Your task to perform on an android device: snooze an email in the gmail app Image 0: 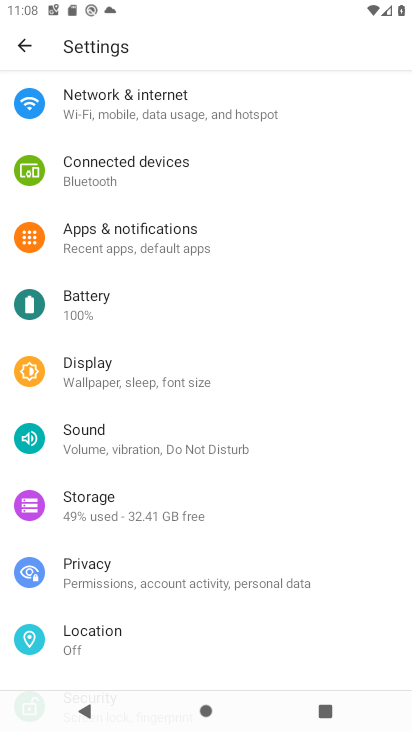
Step 0: press home button
Your task to perform on an android device: snooze an email in the gmail app Image 1: 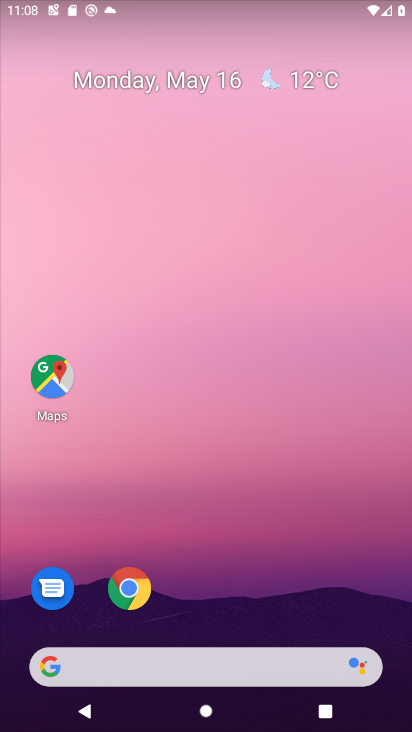
Step 1: drag from (221, 624) to (286, 170)
Your task to perform on an android device: snooze an email in the gmail app Image 2: 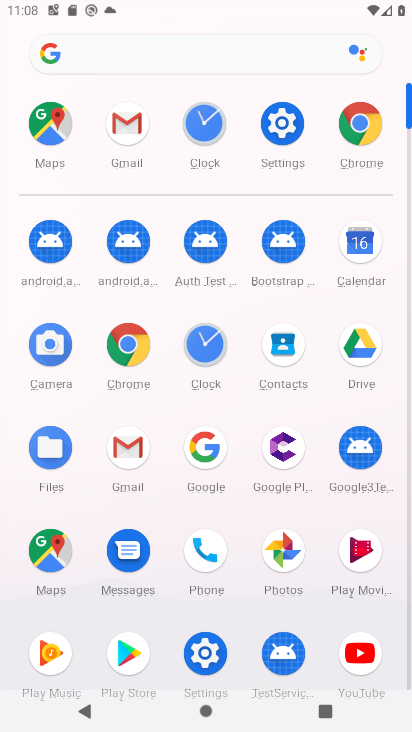
Step 2: click (120, 111)
Your task to perform on an android device: snooze an email in the gmail app Image 3: 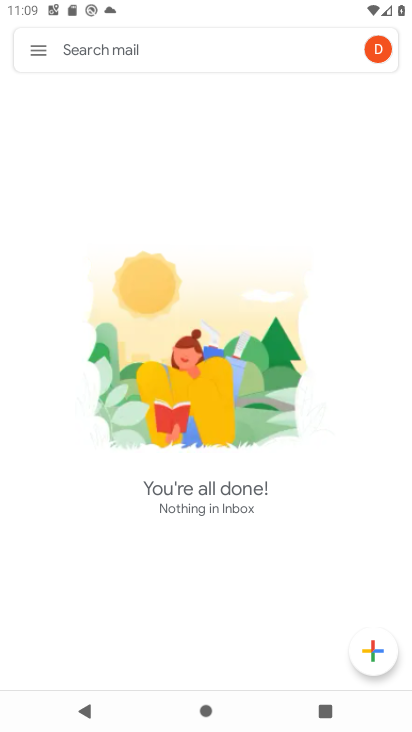
Step 3: click (37, 47)
Your task to perform on an android device: snooze an email in the gmail app Image 4: 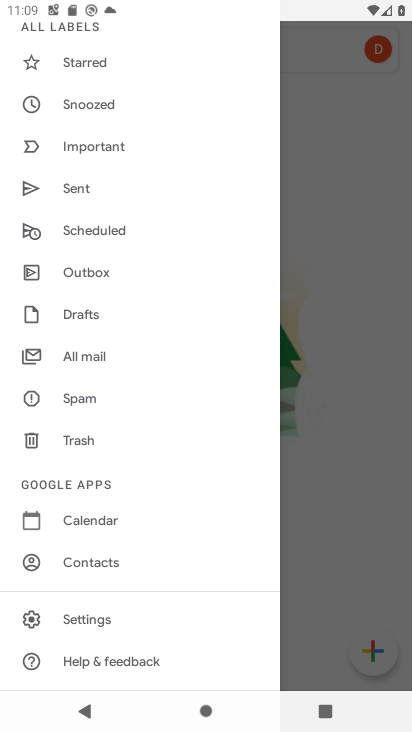
Step 4: click (107, 358)
Your task to perform on an android device: snooze an email in the gmail app Image 5: 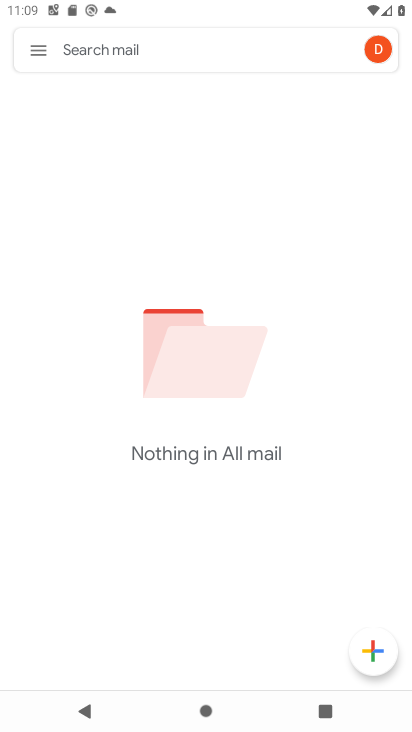
Step 5: task complete